Your task to perform on an android device: open app "Google Pay: Save, Pay, Manage" Image 0: 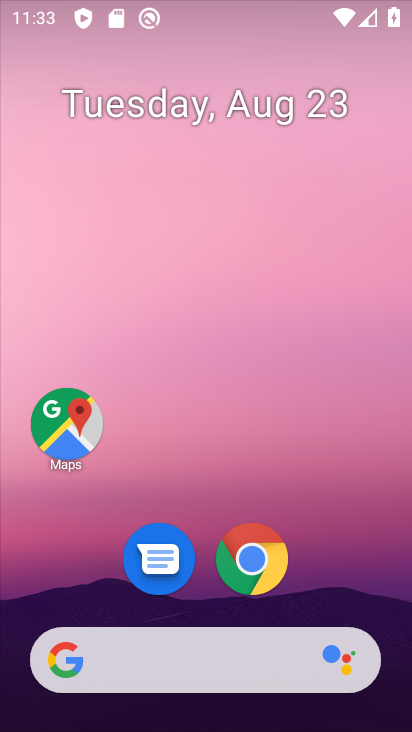
Step 0: drag from (213, 552) to (219, 21)
Your task to perform on an android device: open app "Google Pay: Save, Pay, Manage" Image 1: 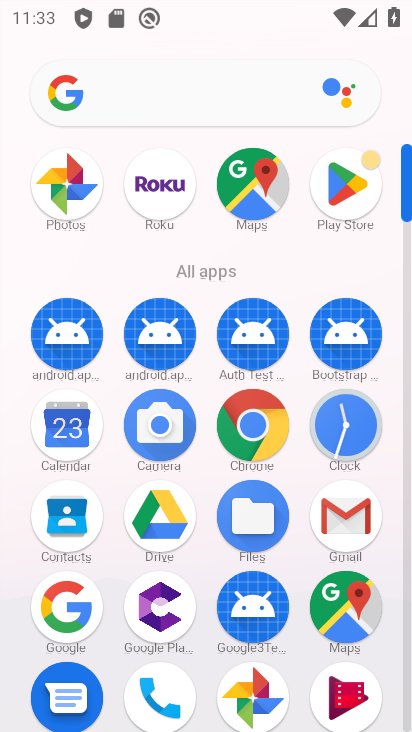
Step 1: click (350, 216)
Your task to perform on an android device: open app "Google Pay: Save, Pay, Manage" Image 2: 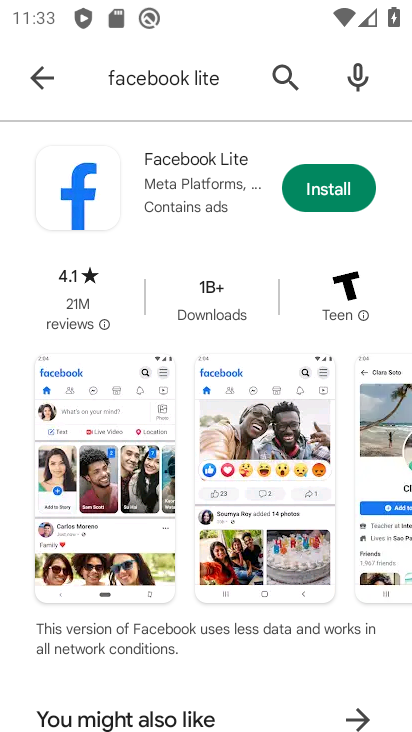
Step 2: click (188, 75)
Your task to perform on an android device: open app "Google Pay: Save, Pay, Manage" Image 3: 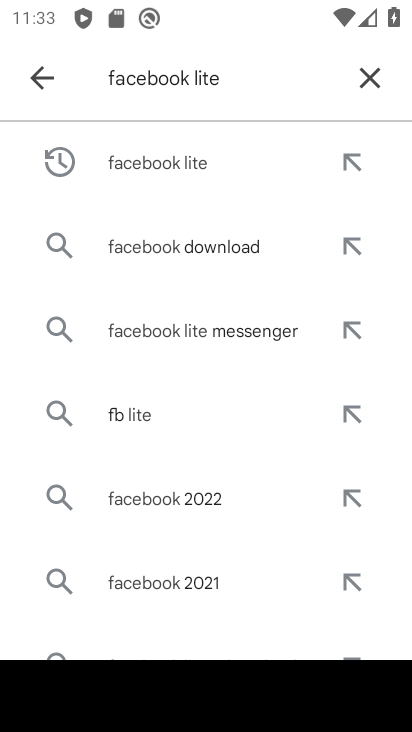
Step 3: click (361, 71)
Your task to perform on an android device: open app "Google Pay: Save, Pay, Manage" Image 4: 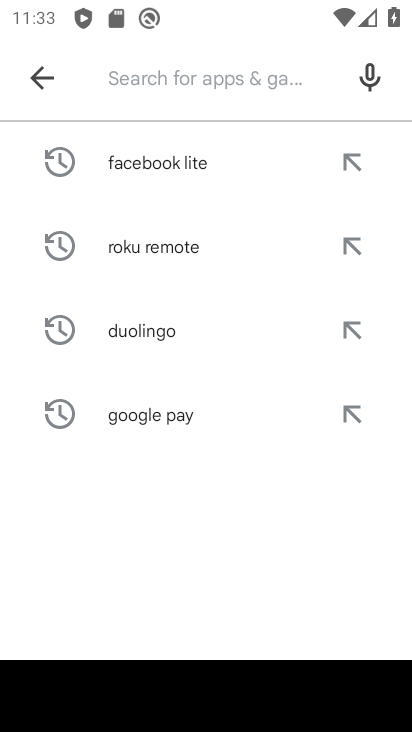
Step 4: type "google pay"
Your task to perform on an android device: open app "Google Pay: Save, Pay, Manage" Image 5: 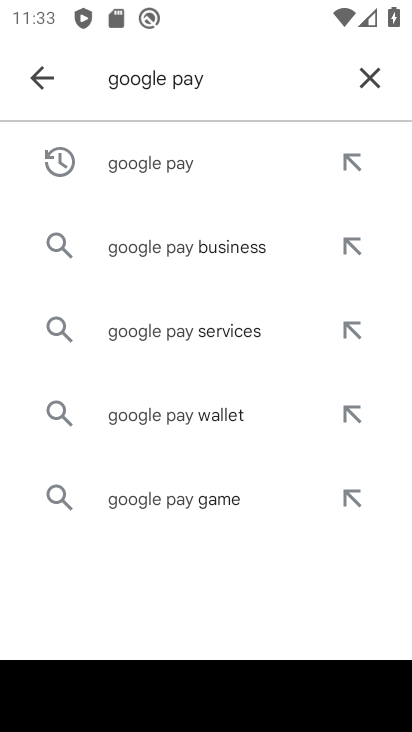
Step 5: click (169, 180)
Your task to perform on an android device: open app "Google Pay: Save, Pay, Manage" Image 6: 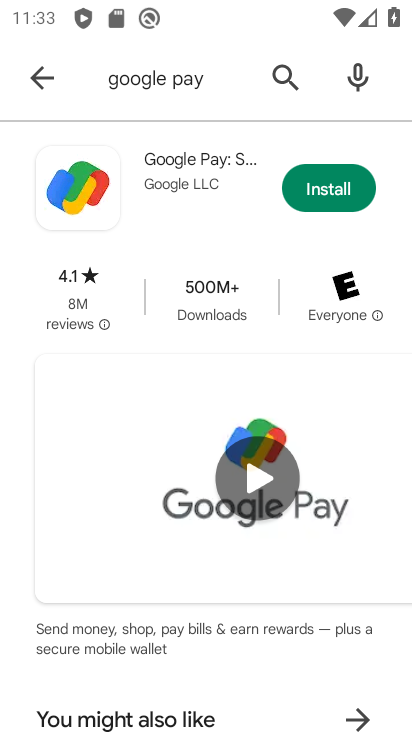
Step 6: task complete